Your task to perform on an android device: Open Google Chrome Image 0: 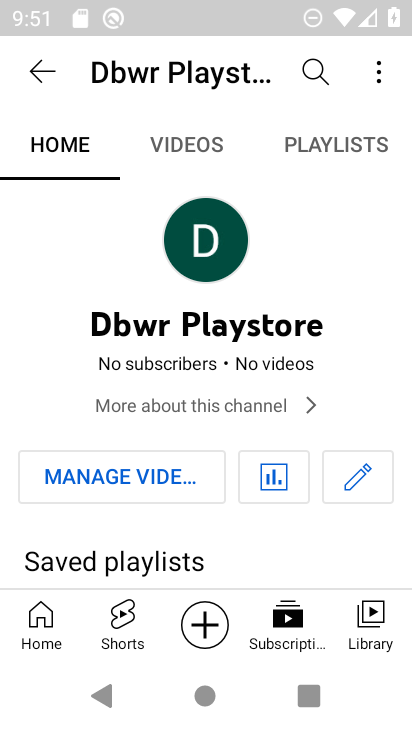
Step 0: press home button
Your task to perform on an android device: Open Google Chrome Image 1: 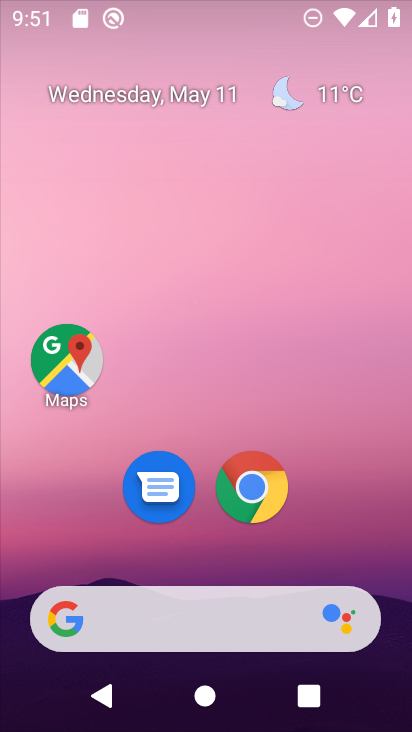
Step 1: drag from (255, 582) to (204, 244)
Your task to perform on an android device: Open Google Chrome Image 2: 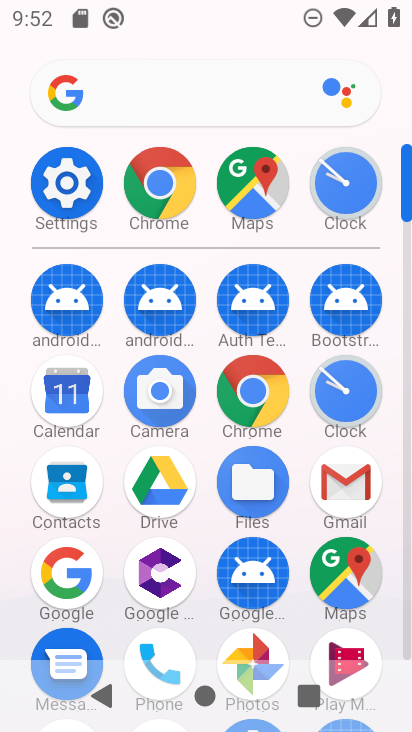
Step 2: click (145, 195)
Your task to perform on an android device: Open Google Chrome Image 3: 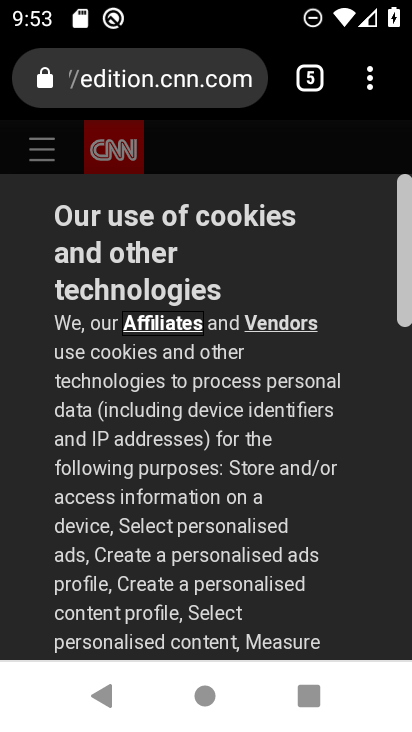
Step 3: click (309, 75)
Your task to perform on an android device: Open Google Chrome Image 4: 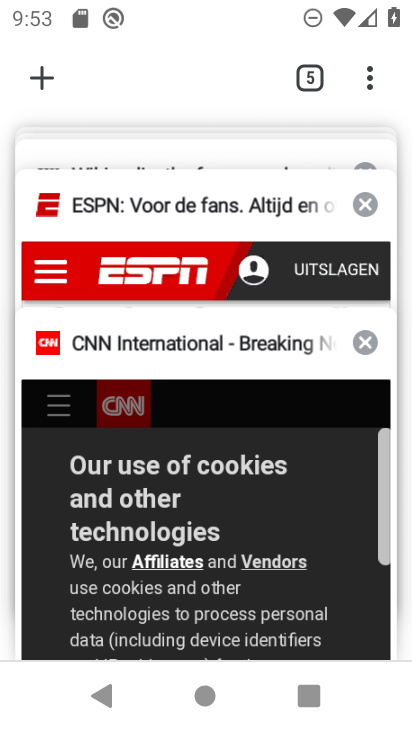
Step 4: click (52, 76)
Your task to perform on an android device: Open Google Chrome Image 5: 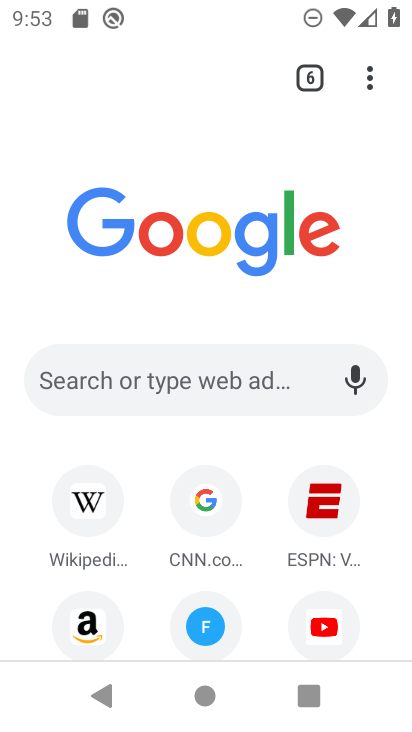
Step 5: task complete